Your task to perform on an android device: What's a good restaurant in Denver? Image 0: 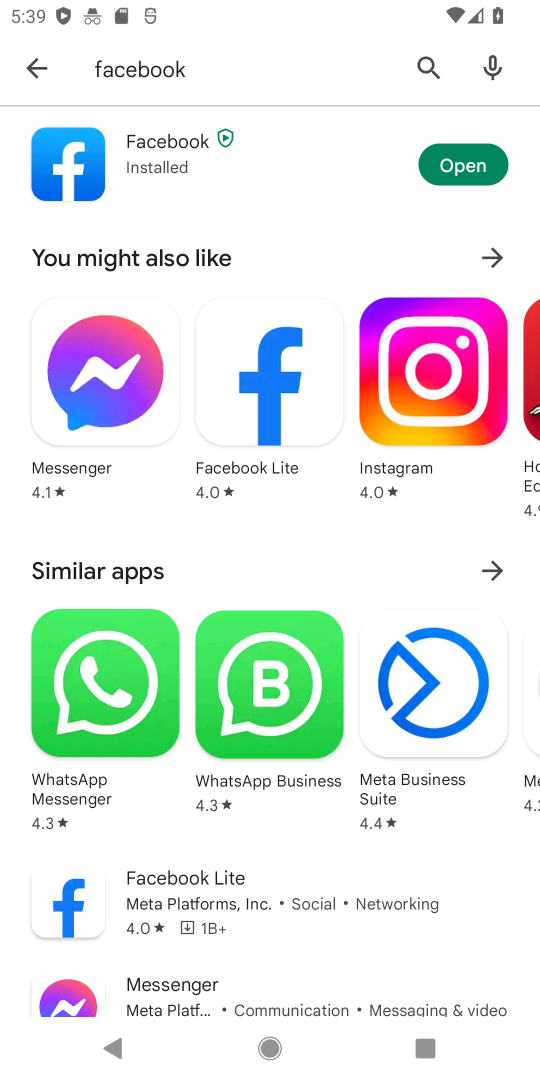
Step 0: press home button
Your task to perform on an android device: What's a good restaurant in Denver? Image 1: 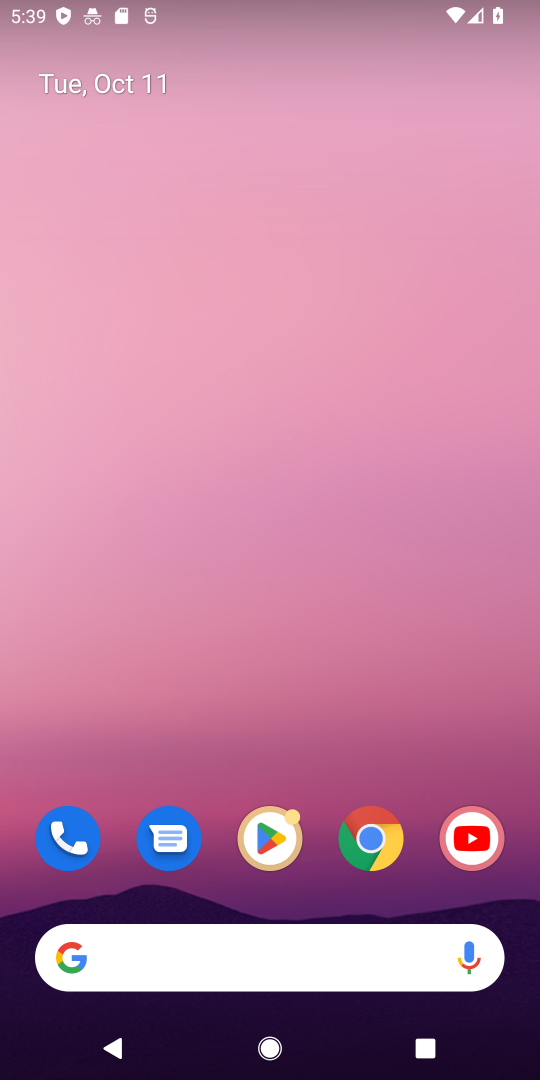
Step 1: click (370, 849)
Your task to perform on an android device: What's a good restaurant in Denver? Image 2: 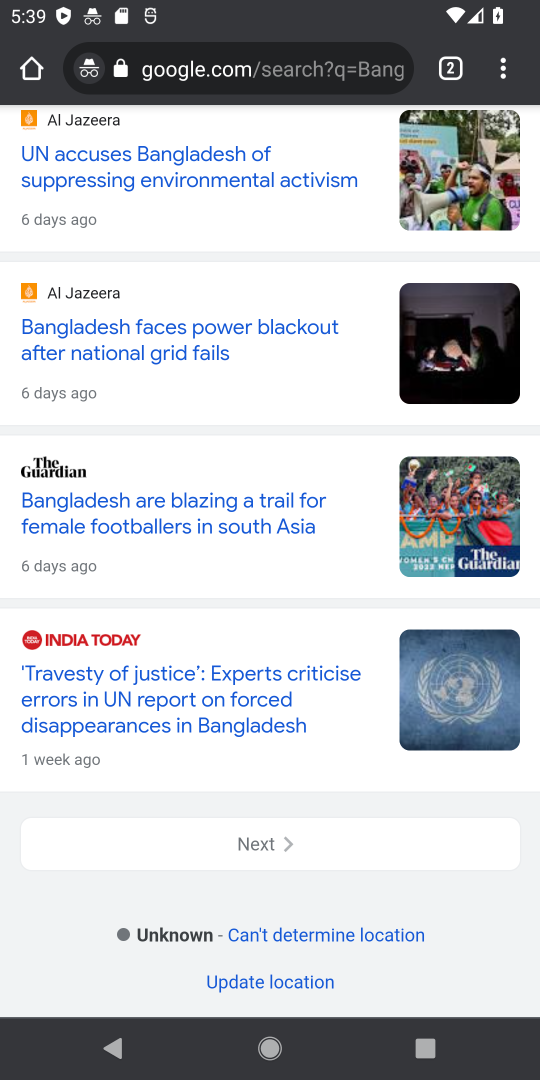
Step 2: click (288, 66)
Your task to perform on an android device: What's a good restaurant in Denver? Image 3: 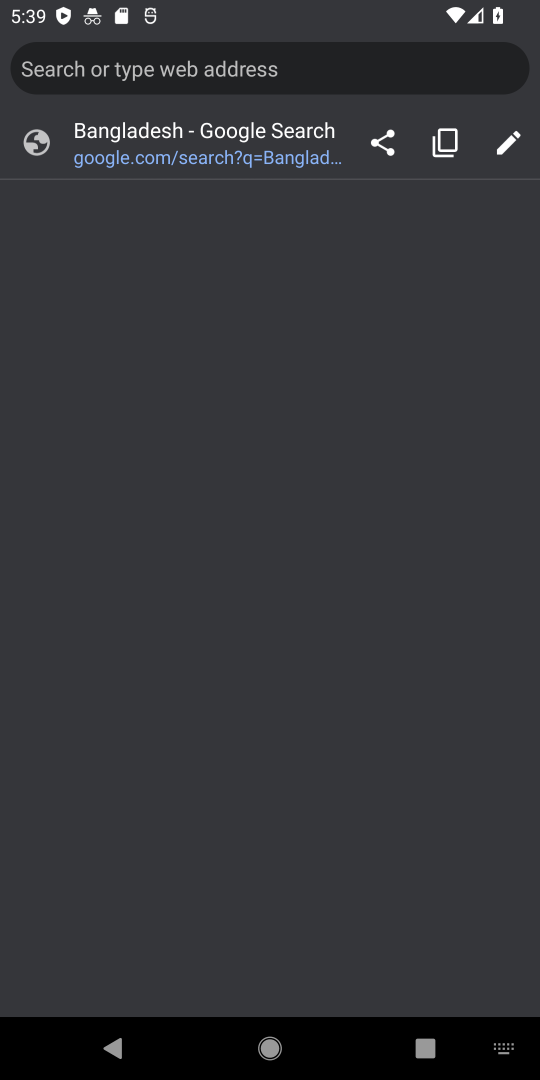
Step 3: type "good restaurant in Denver"
Your task to perform on an android device: What's a good restaurant in Denver? Image 4: 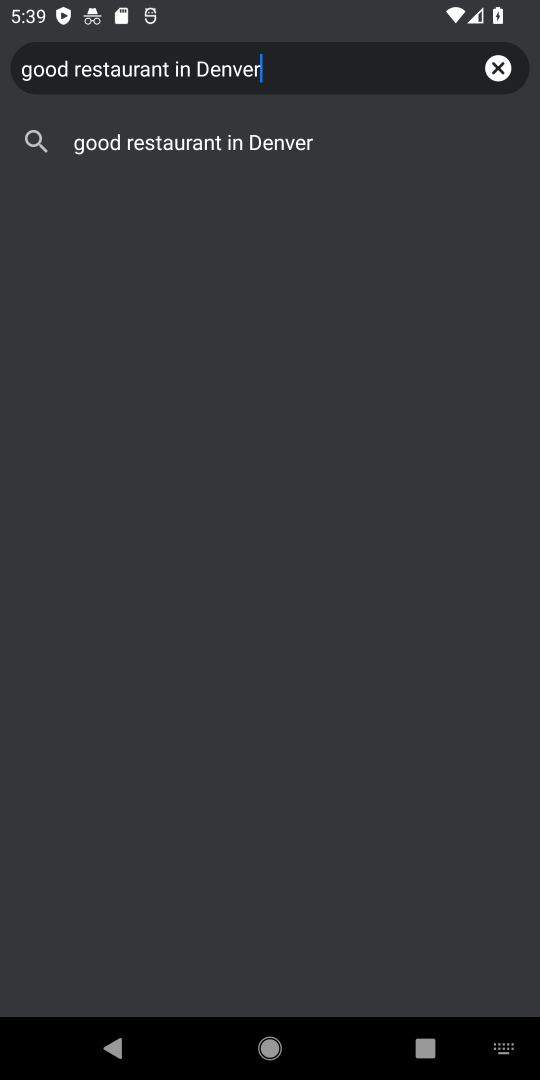
Step 4: press enter
Your task to perform on an android device: What's a good restaurant in Denver? Image 5: 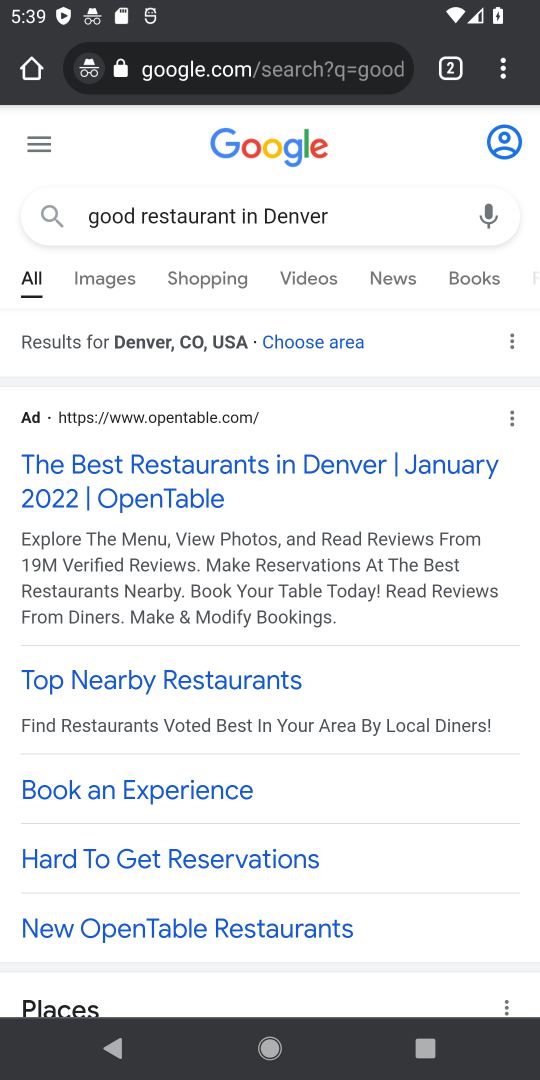
Step 5: drag from (416, 662) to (281, 212)
Your task to perform on an android device: What's a good restaurant in Denver? Image 6: 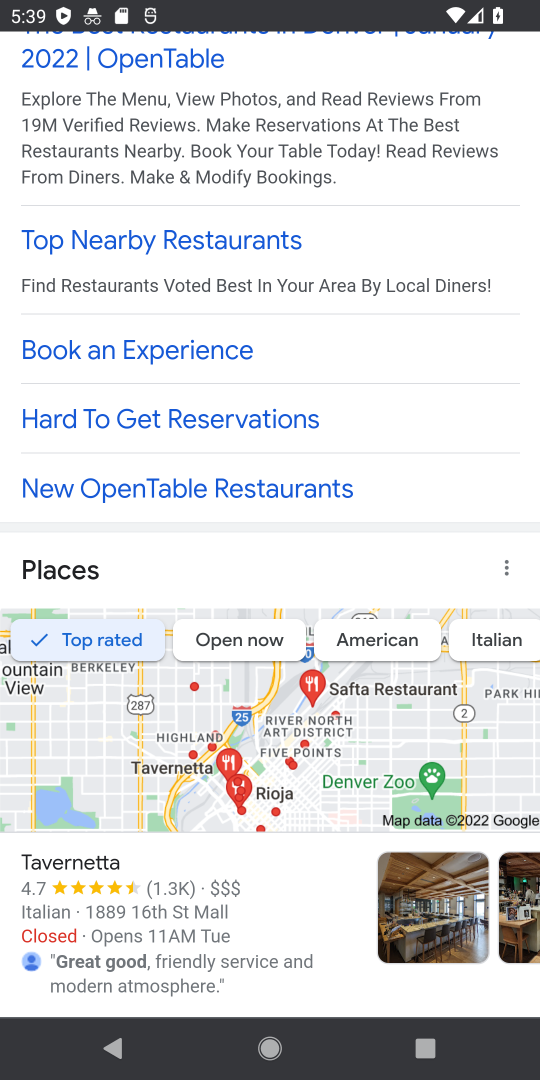
Step 6: drag from (256, 871) to (120, 403)
Your task to perform on an android device: What's a good restaurant in Denver? Image 7: 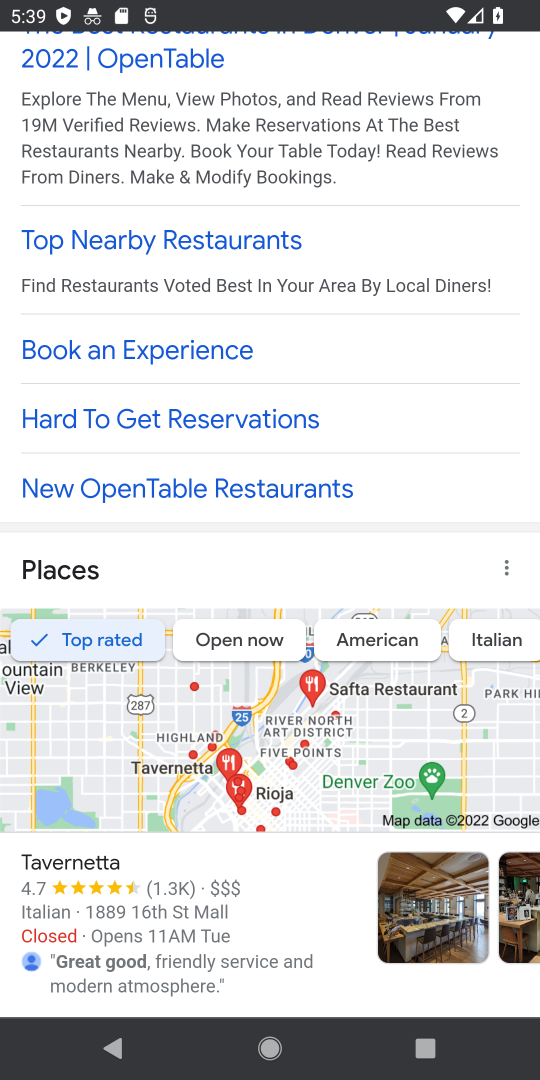
Step 7: drag from (275, 866) to (246, 522)
Your task to perform on an android device: What's a good restaurant in Denver? Image 8: 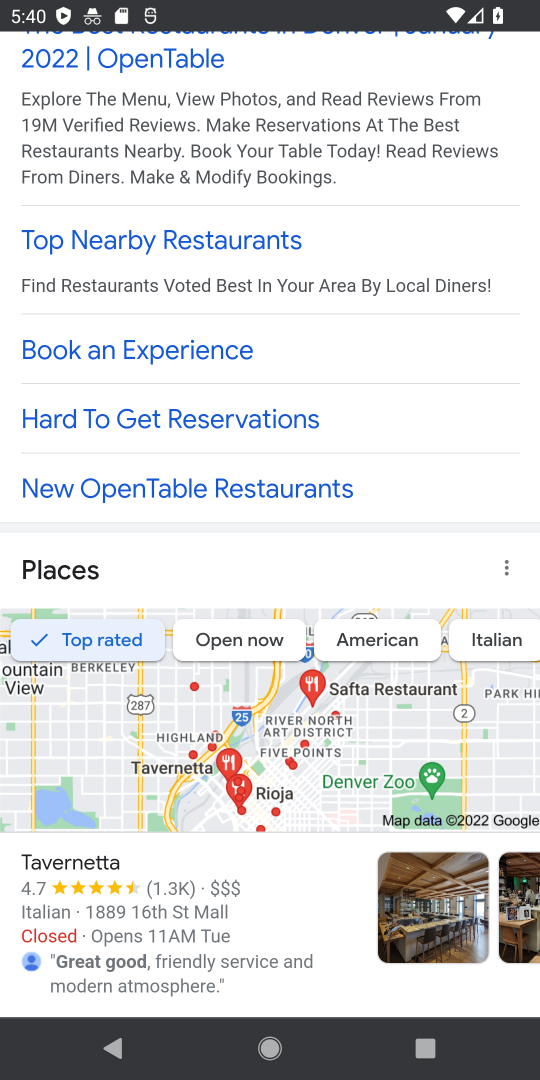
Step 8: drag from (268, 879) to (246, 316)
Your task to perform on an android device: What's a good restaurant in Denver? Image 9: 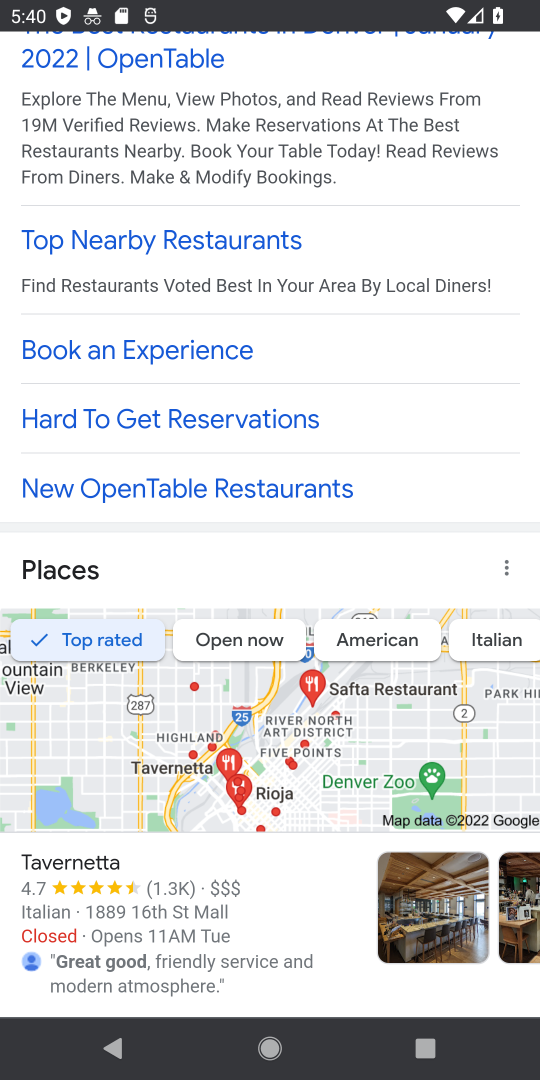
Step 9: drag from (296, 896) to (298, 191)
Your task to perform on an android device: What's a good restaurant in Denver? Image 10: 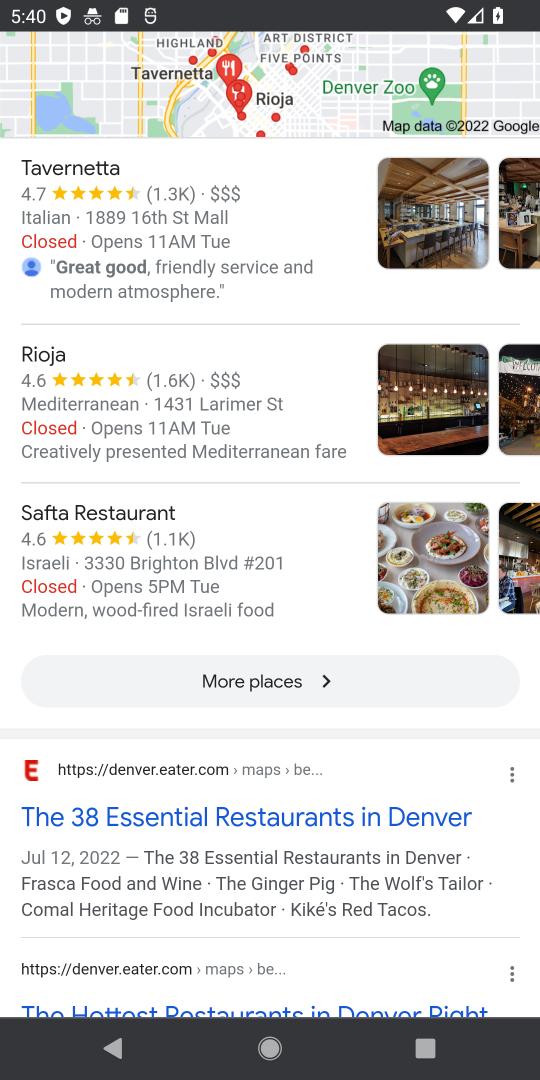
Step 10: click (240, 687)
Your task to perform on an android device: What's a good restaurant in Denver? Image 11: 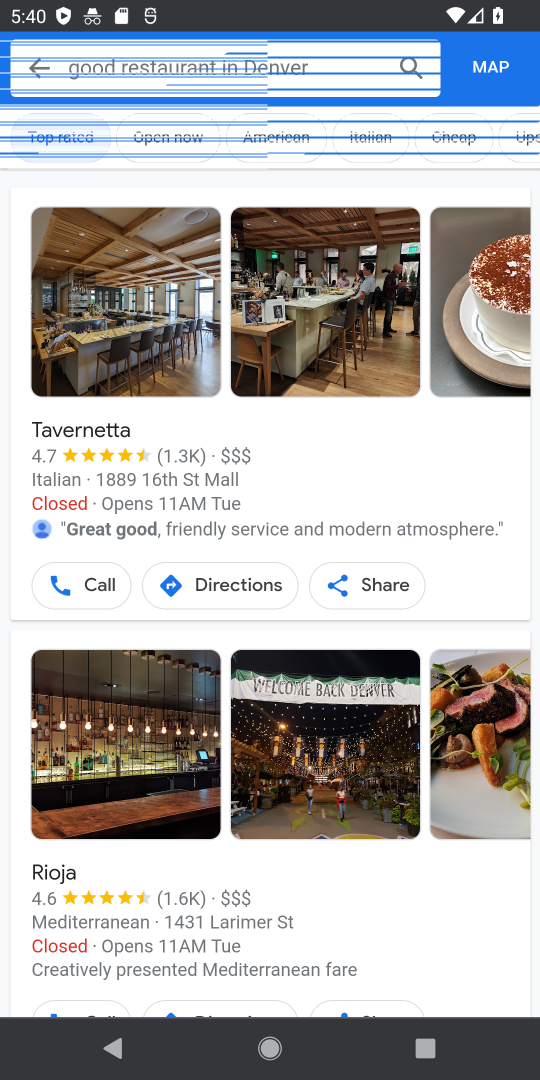
Step 11: task complete